Your task to perform on an android device: Search for the best gaming monitor on Best Buy Image 0: 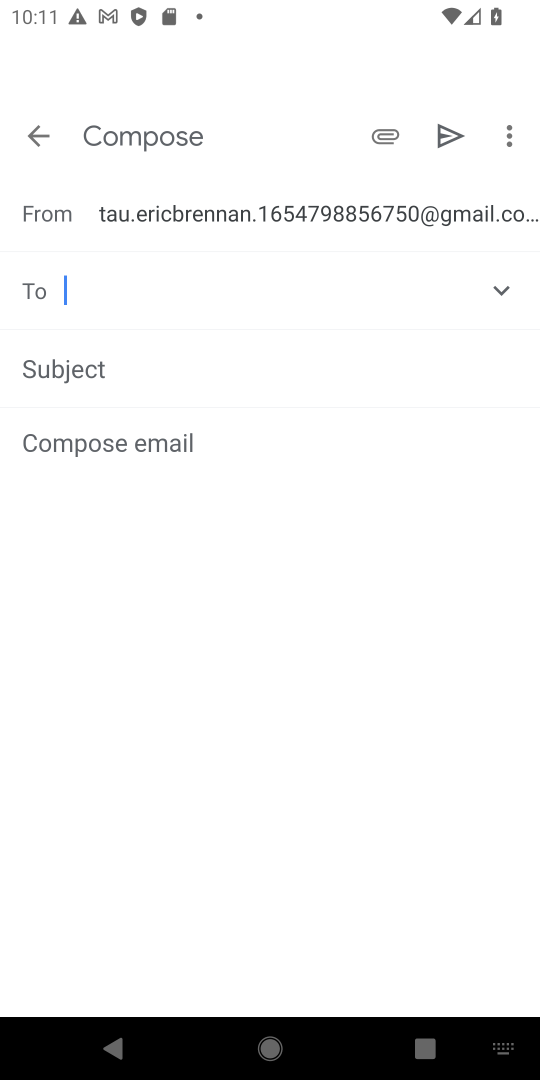
Step 0: press home button
Your task to perform on an android device: Search for the best gaming monitor on Best Buy Image 1: 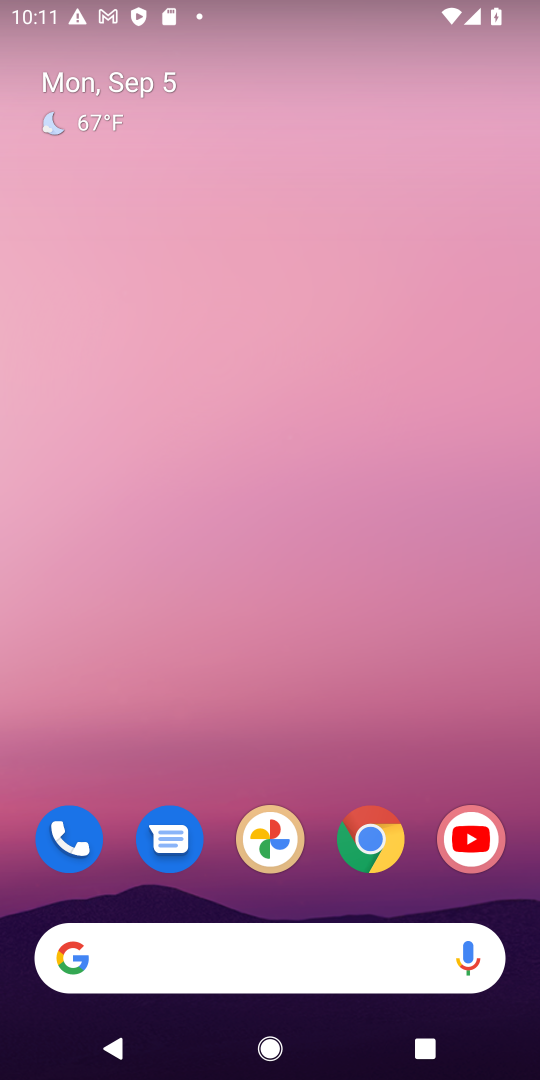
Step 1: drag from (259, 928) to (309, 140)
Your task to perform on an android device: Search for the best gaming monitor on Best Buy Image 2: 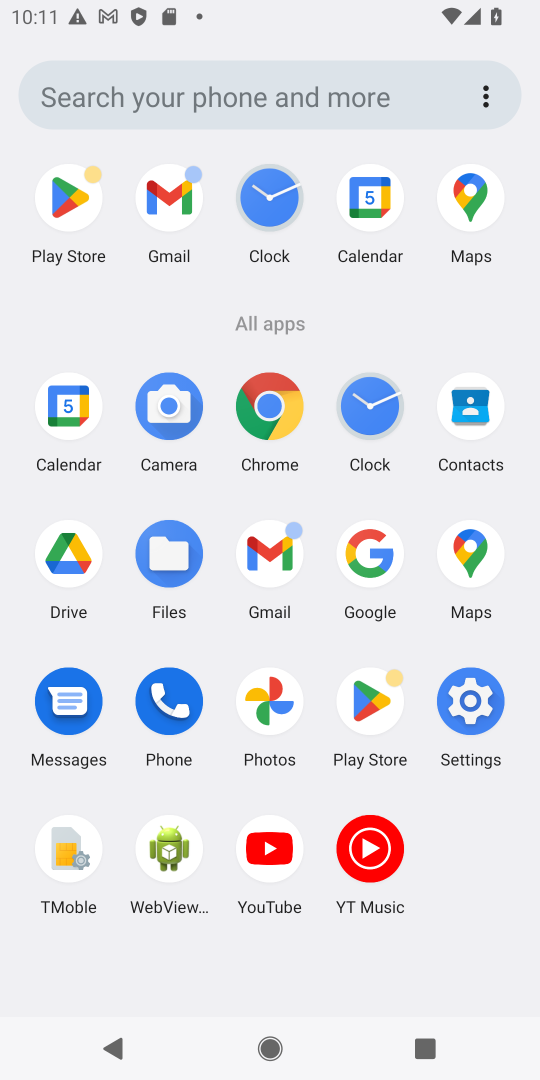
Step 2: click (360, 560)
Your task to perform on an android device: Search for the best gaming monitor on Best Buy Image 3: 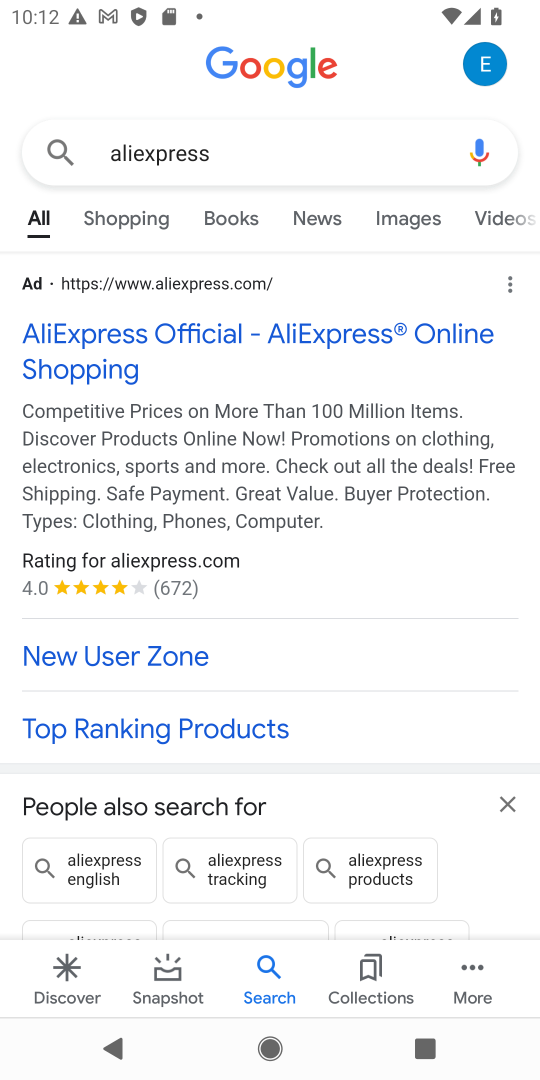
Step 3: click (231, 150)
Your task to perform on an android device: Search for the best gaming monitor on Best Buy Image 4: 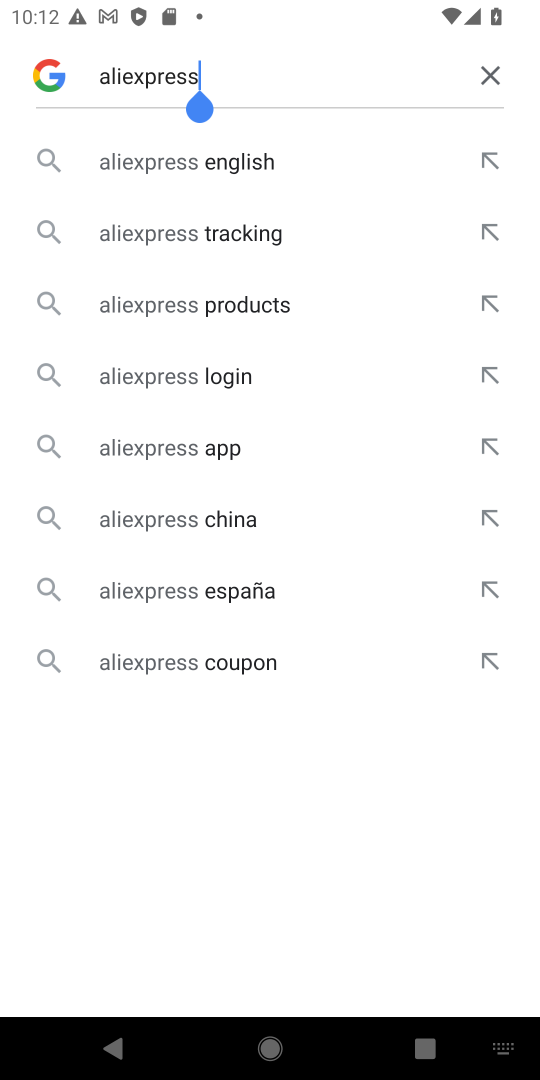
Step 4: click (489, 70)
Your task to perform on an android device: Search for the best gaming monitor on Best Buy Image 5: 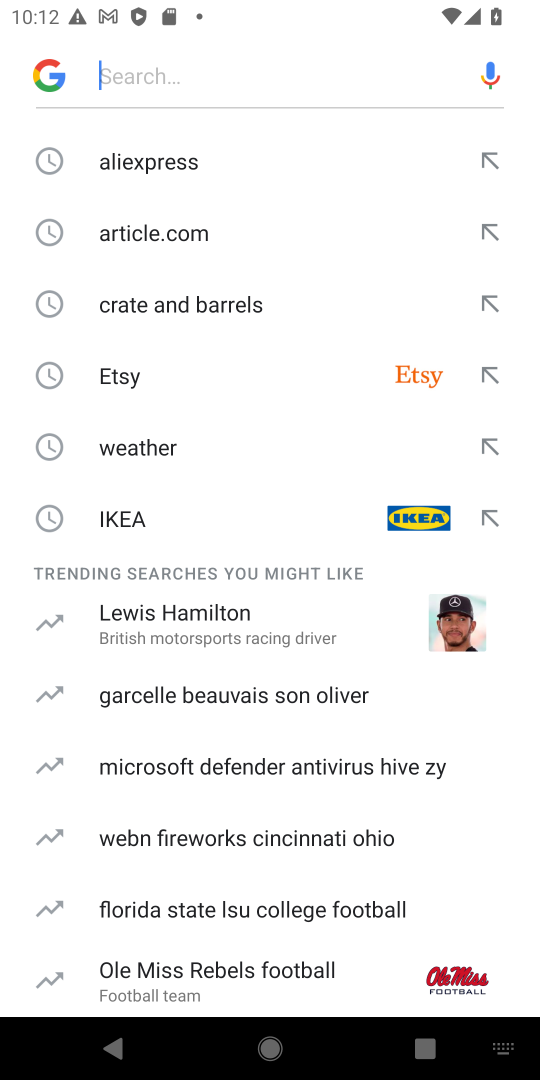
Step 5: type "Best Buy"
Your task to perform on an android device: Search for the best gaming monitor on Best Buy Image 6: 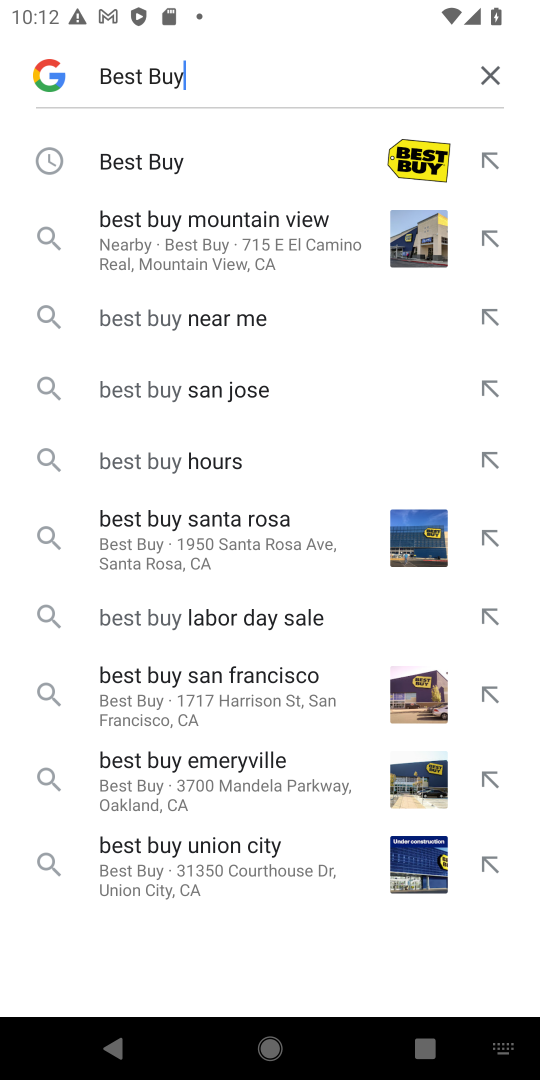
Step 6: click (116, 170)
Your task to perform on an android device: Search for the best gaming monitor on Best Buy Image 7: 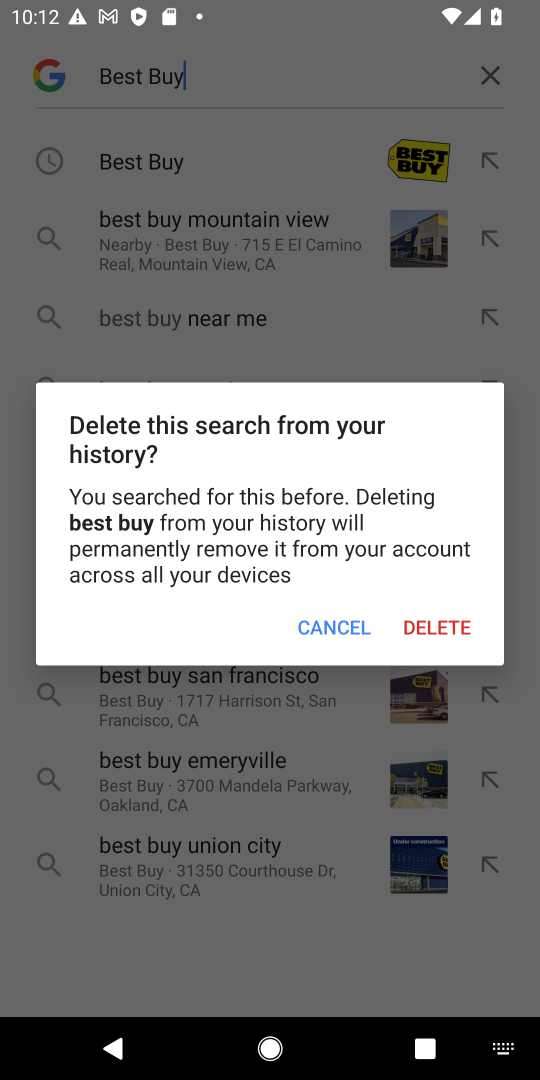
Step 7: click (334, 629)
Your task to perform on an android device: Search for the best gaming monitor on Best Buy Image 8: 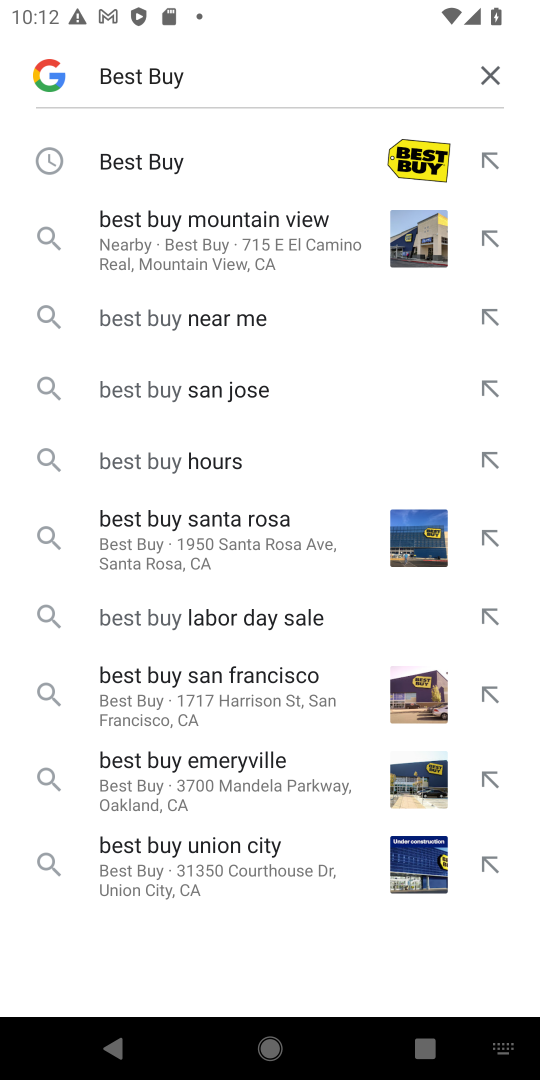
Step 8: click (418, 162)
Your task to perform on an android device: Search for the best gaming monitor on Best Buy Image 9: 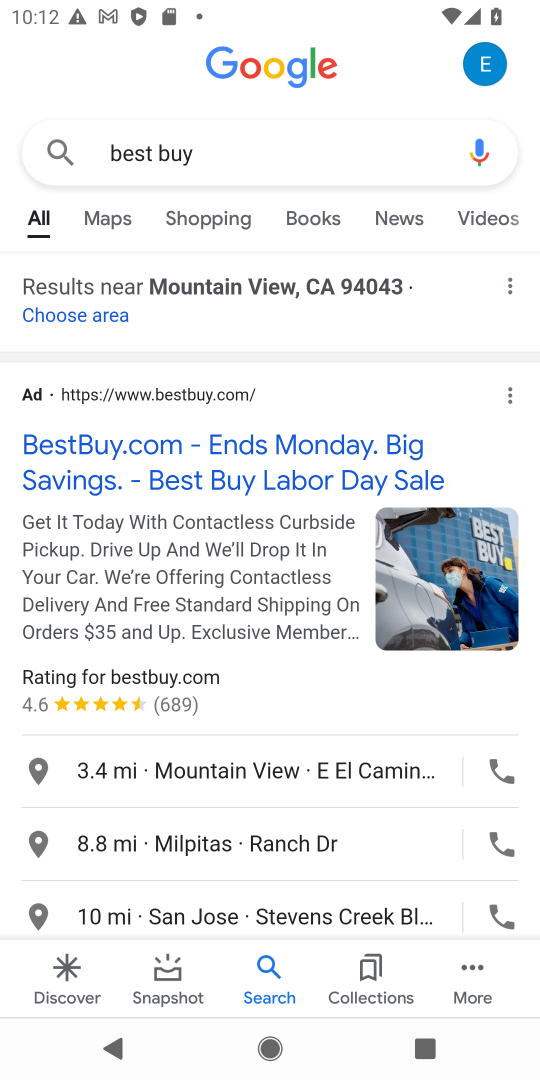
Step 9: click (276, 466)
Your task to perform on an android device: Search for the best gaming monitor on Best Buy Image 10: 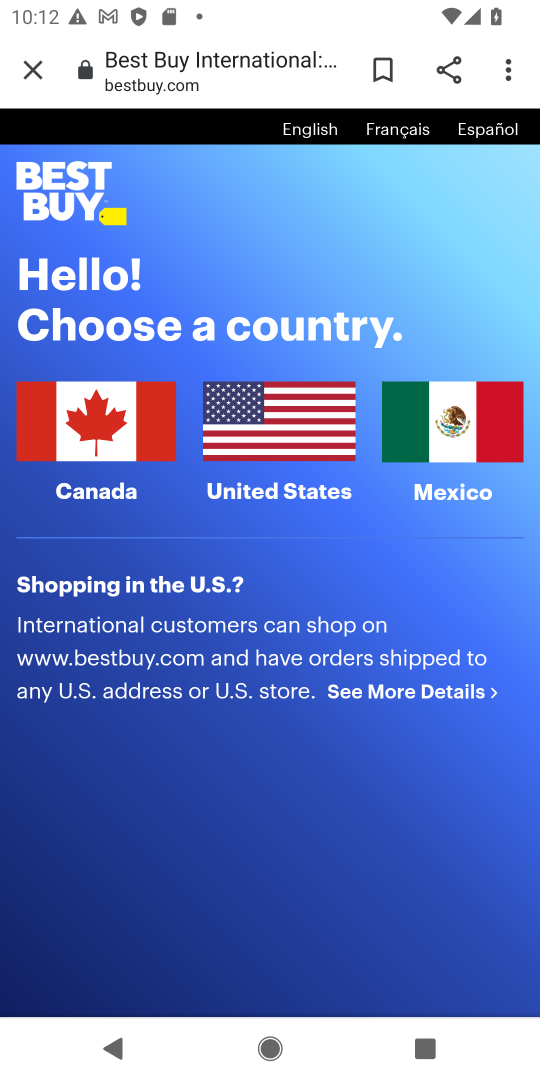
Step 10: task complete